Your task to perform on an android device: turn notification dots on Image 0: 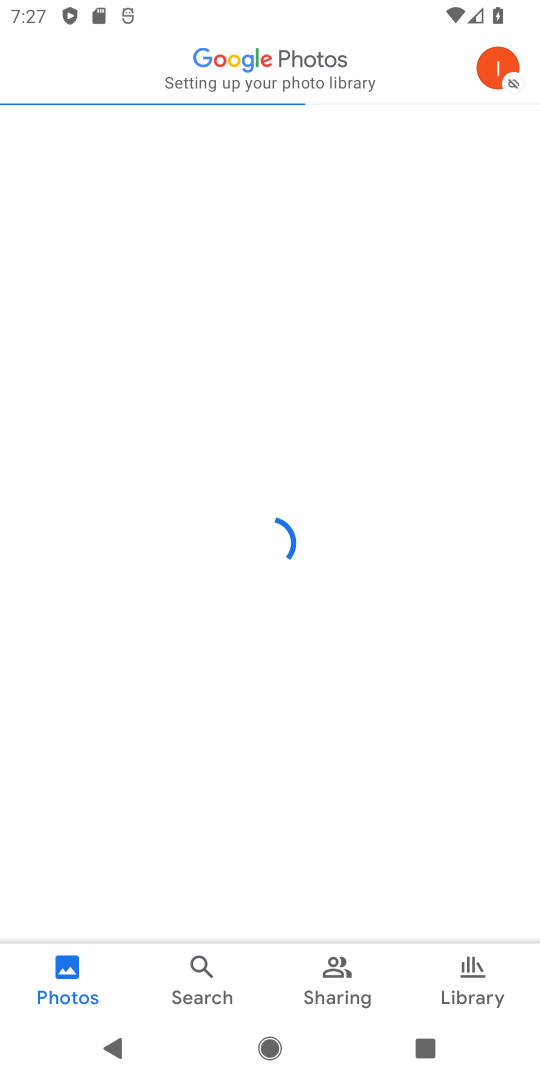
Step 0: press home button
Your task to perform on an android device: turn notification dots on Image 1: 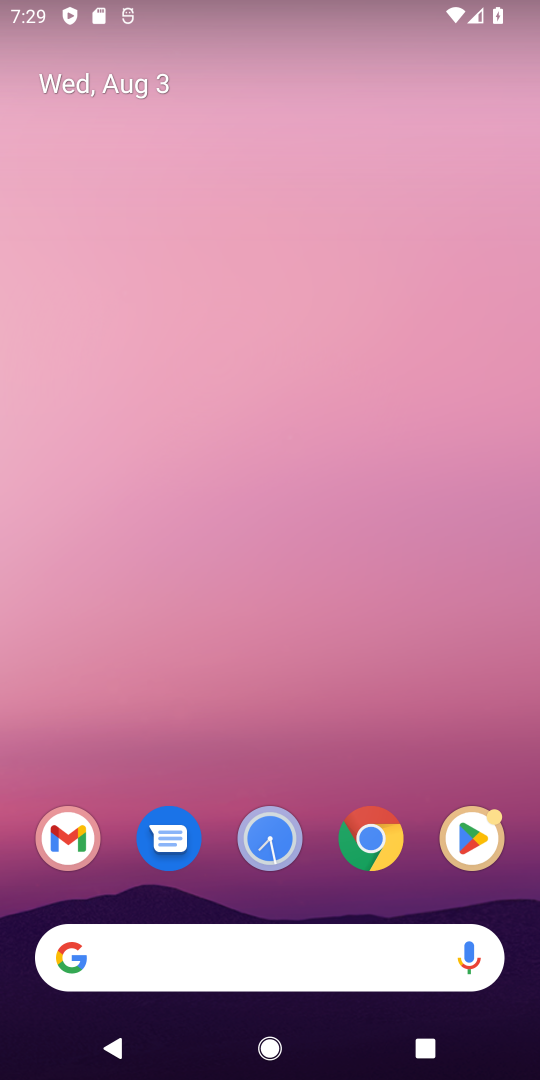
Step 1: drag from (310, 790) to (196, 329)
Your task to perform on an android device: turn notification dots on Image 2: 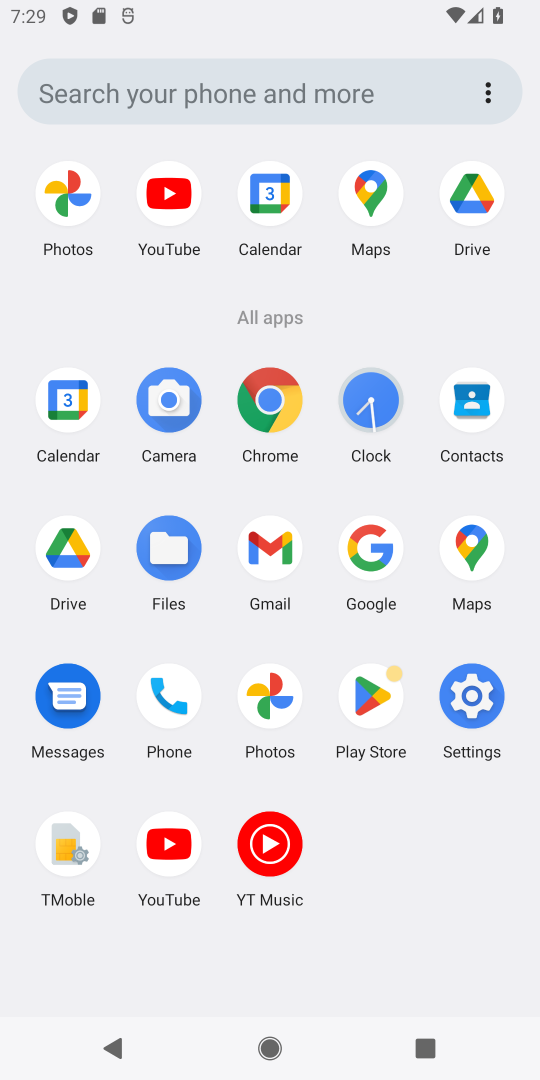
Step 2: drag from (240, 845) to (501, 120)
Your task to perform on an android device: turn notification dots on Image 3: 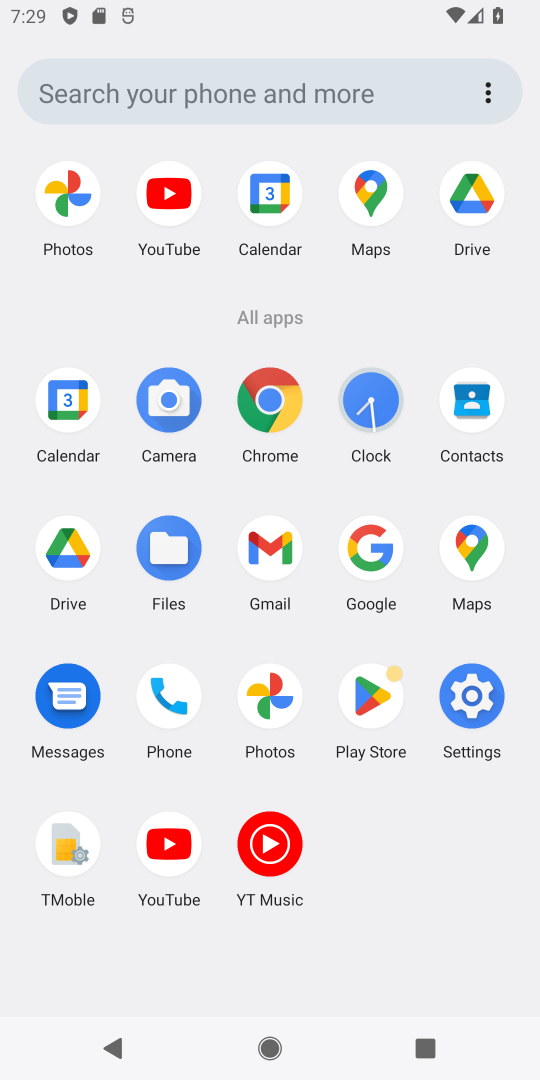
Step 3: click (473, 723)
Your task to perform on an android device: turn notification dots on Image 4: 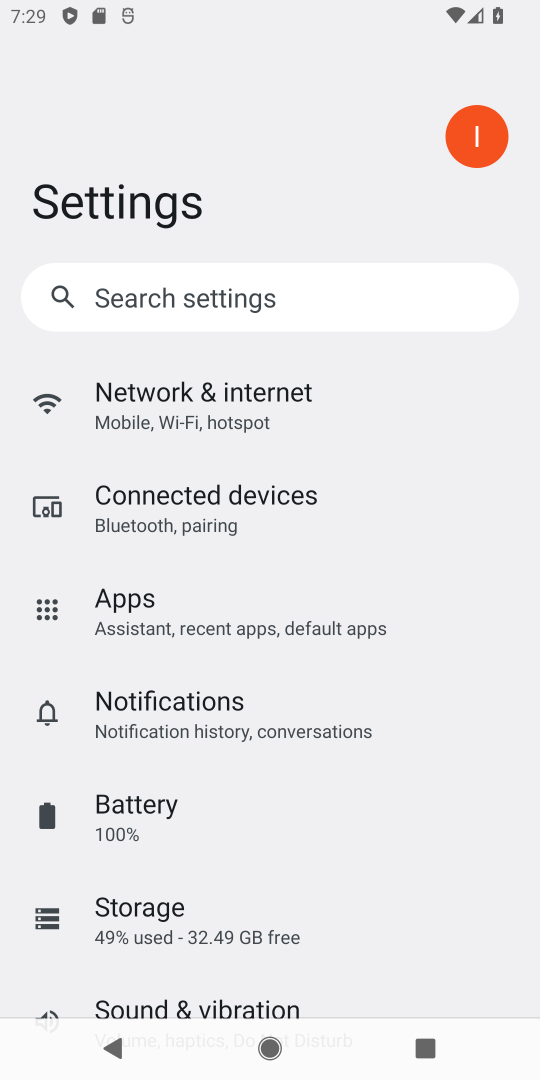
Step 4: click (203, 707)
Your task to perform on an android device: turn notification dots on Image 5: 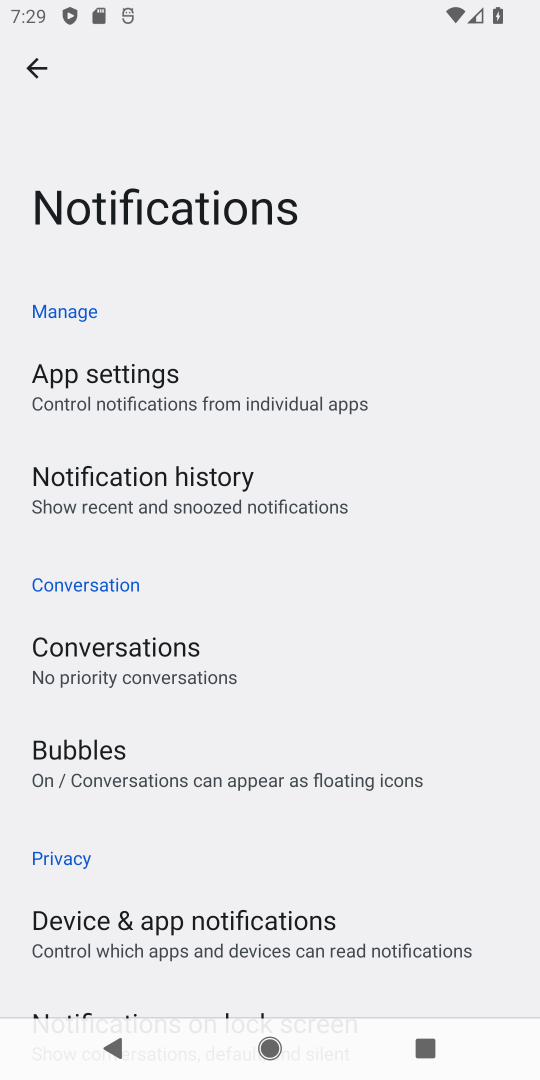
Step 5: click (190, 447)
Your task to perform on an android device: turn notification dots on Image 6: 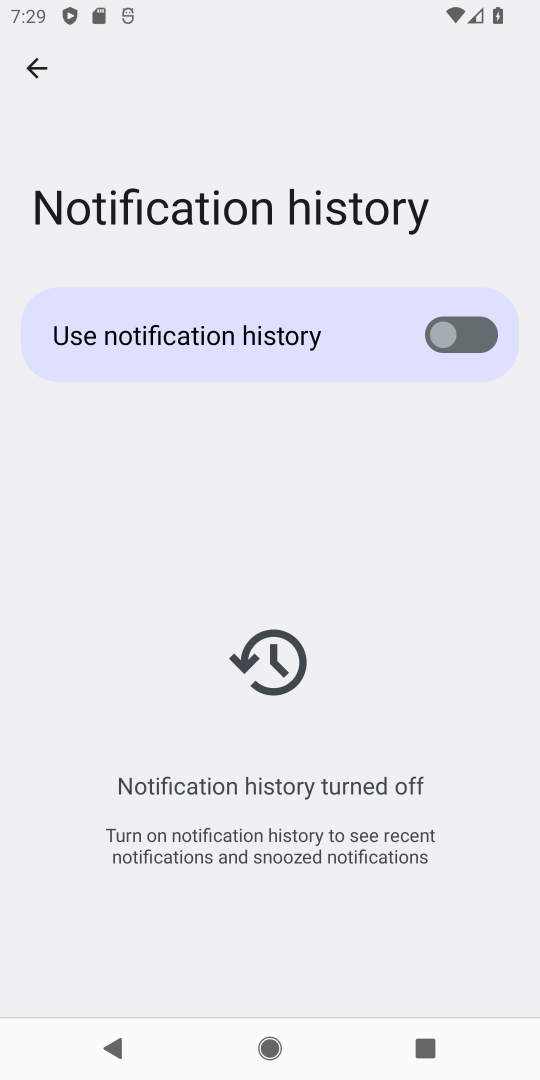
Step 6: click (32, 67)
Your task to perform on an android device: turn notification dots on Image 7: 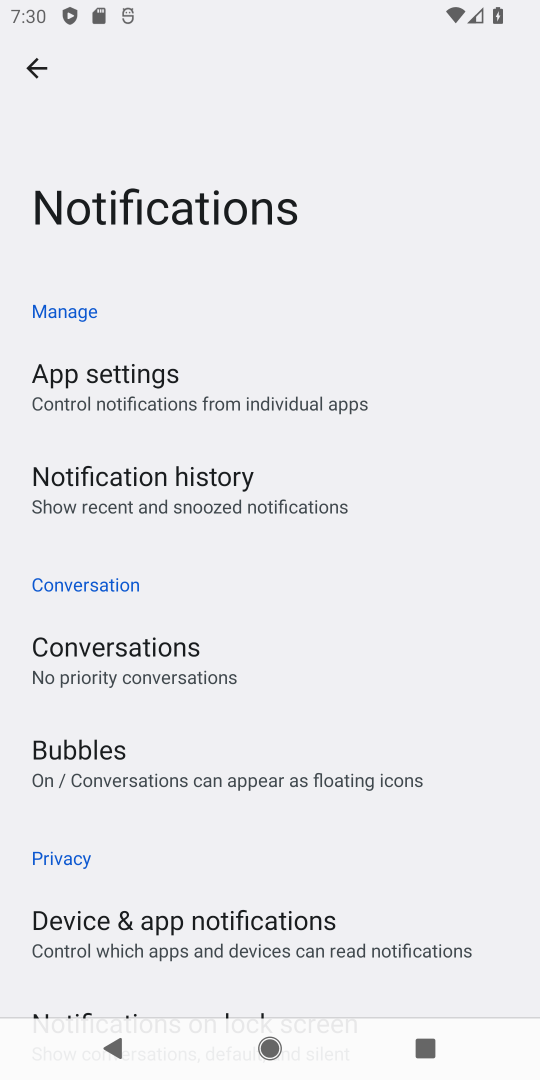
Step 7: task complete